Your task to perform on an android device: Open Chrome and go to settings Image 0: 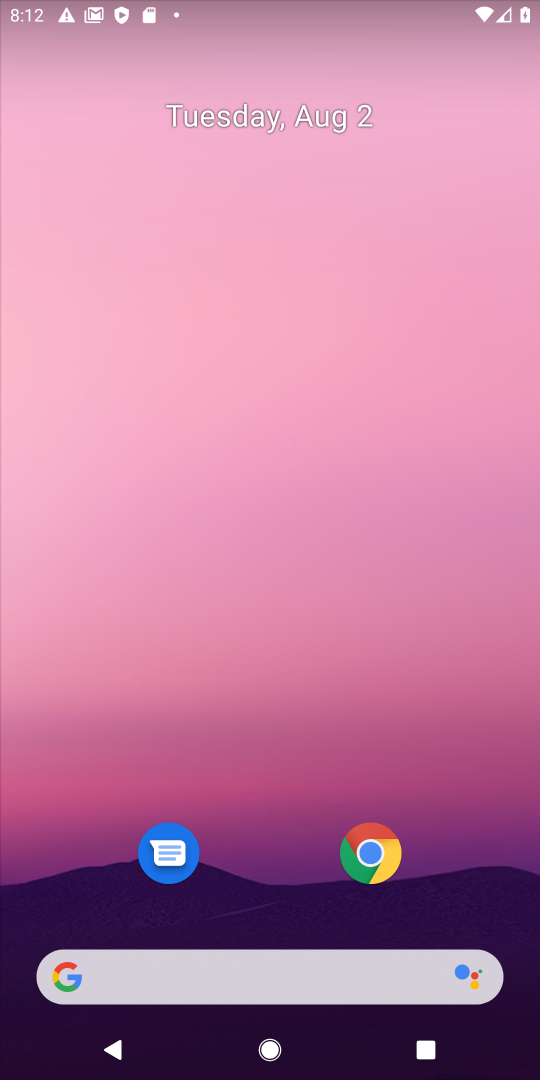
Step 0: click (385, 855)
Your task to perform on an android device: Open Chrome and go to settings Image 1: 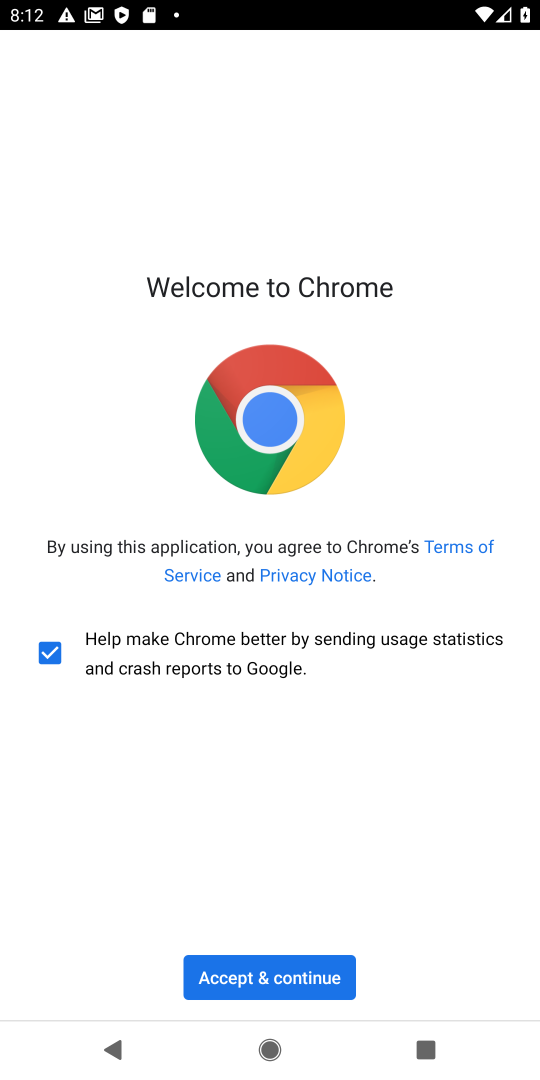
Step 1: click (275, 964)
Your task to perform on an android device: Open Chrome and go to settings Image 2: 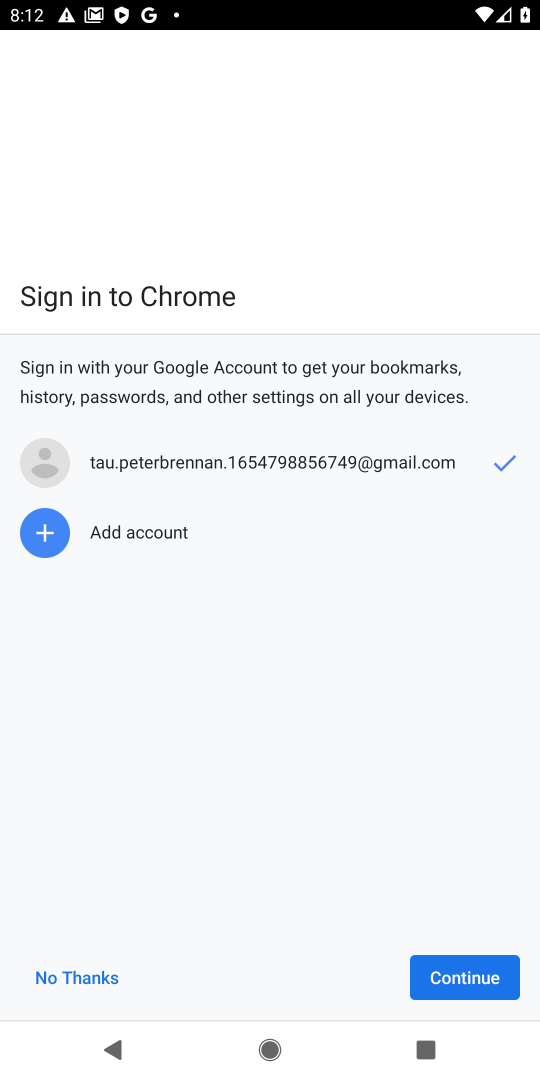
Step 2: click (456, 990)
Your task to perform on an android device: Open Chrome and go to settings Image 3: 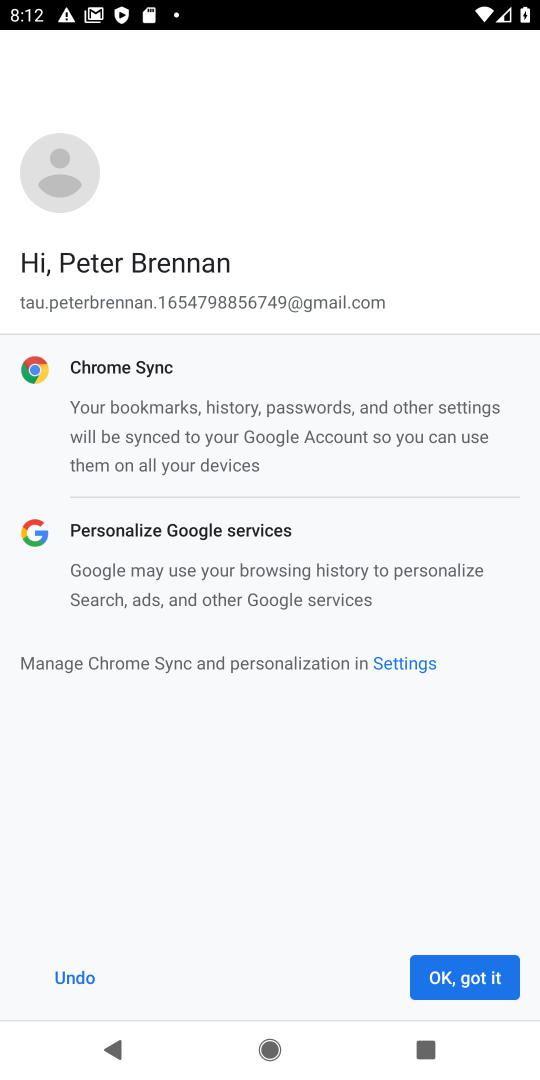
Step 3: click (456, 990)
Your task to perform on an android device: Open Chrome and go to settings Image 4: 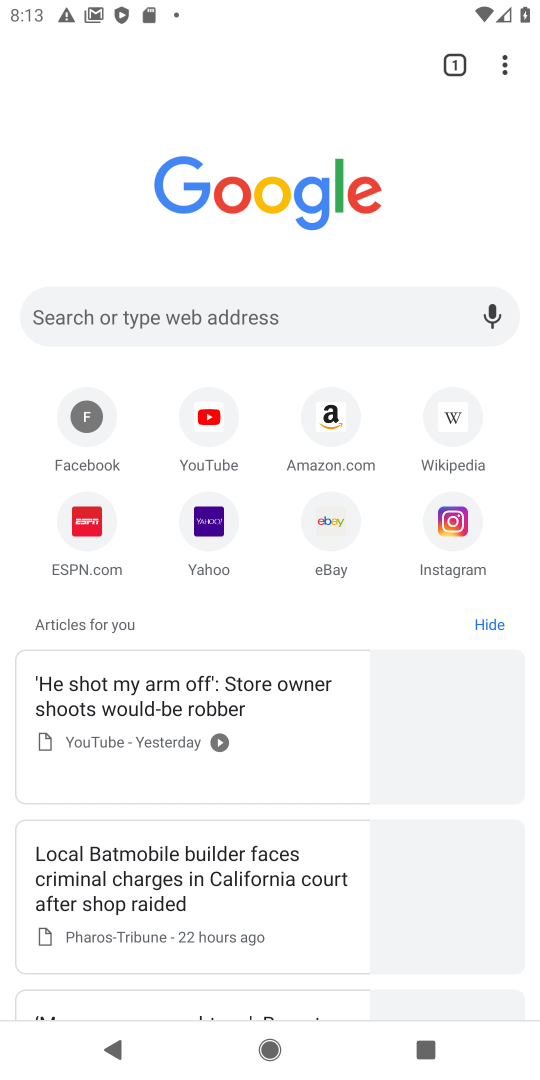
Step 4: click (508, 68)
Your task to perform on an android device: Open Chrome and go to settings Image 5: 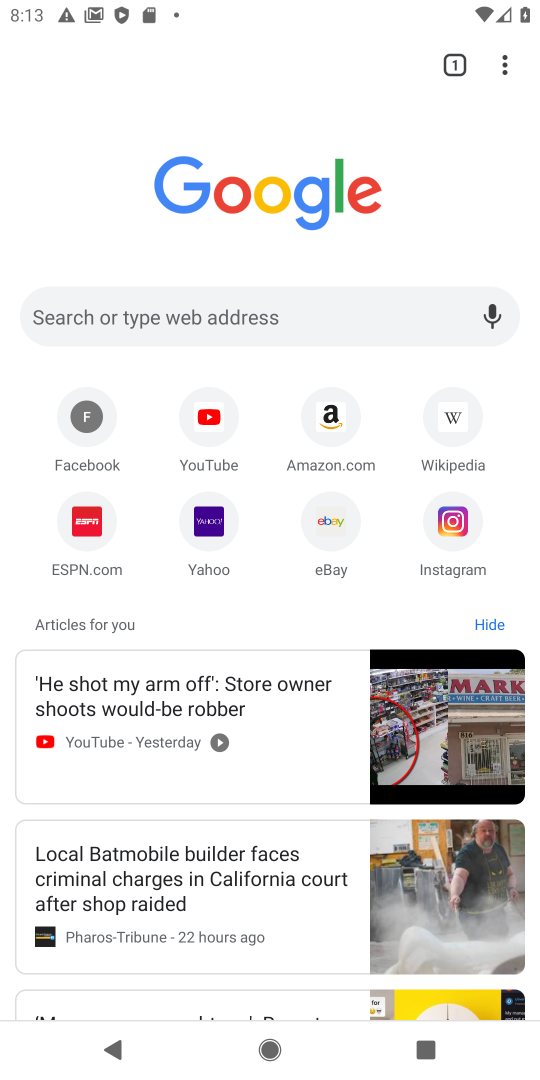
Step 5: click (505, 59)
Your task to perform on an android device: Open Chrome and go to settings Image 6: 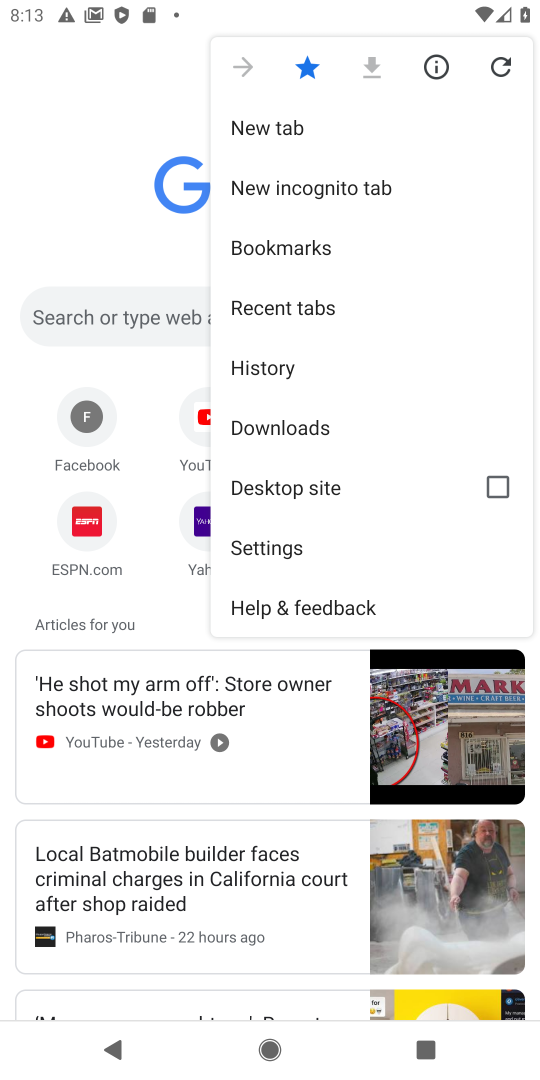
Step 6: click (292, 546)
Your task to perform on an android device: Open Chrome and go to settings Image 7: 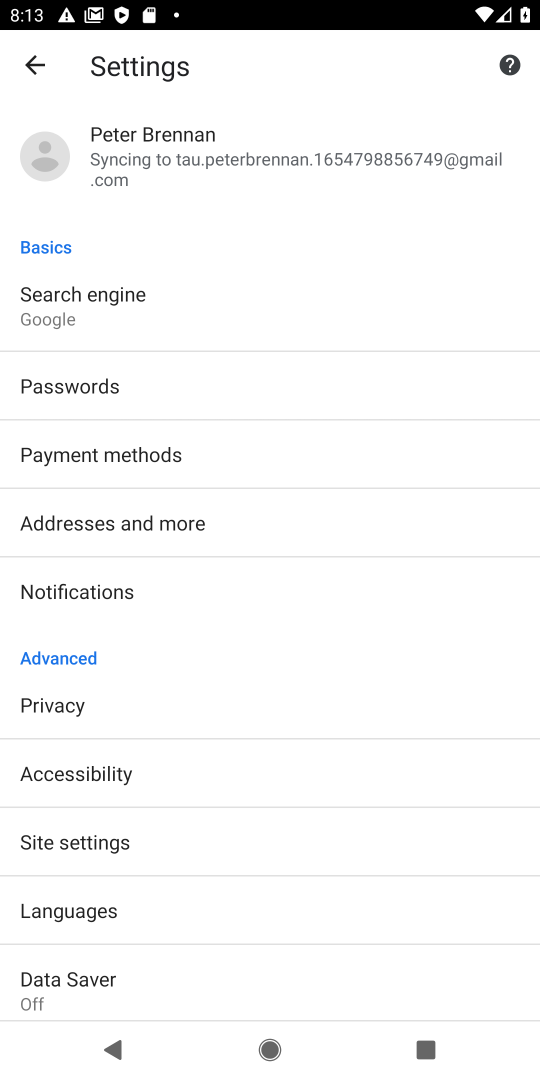
Step 7: task complete